Your task to perform on an android device: What's the weather going to be this weekend? Image 0: 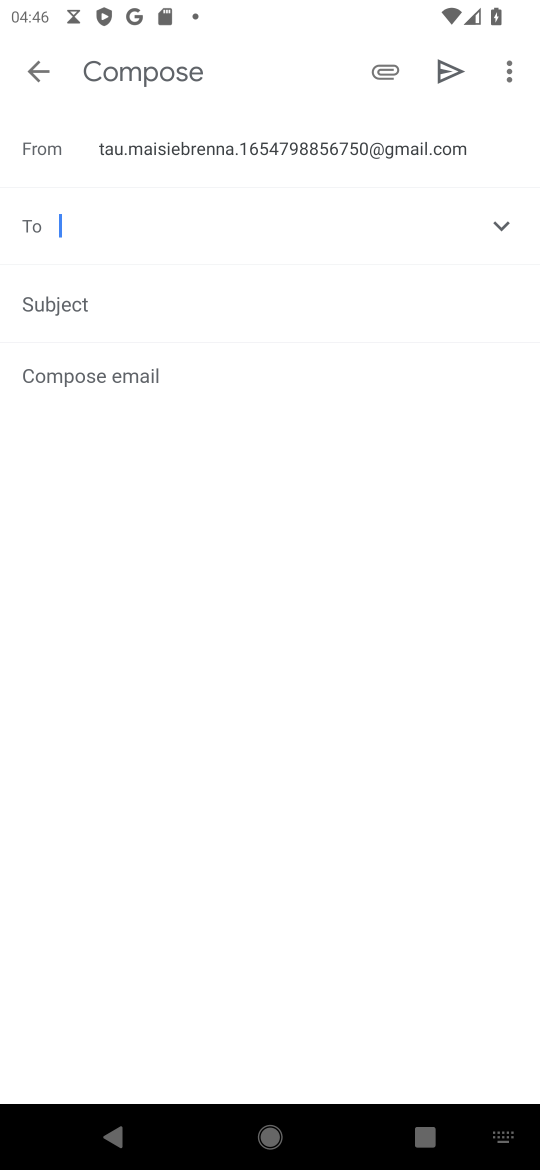
Step 0: press home button
Your task to perform on an android device: What's the weather going to be this weekend? Image 1: 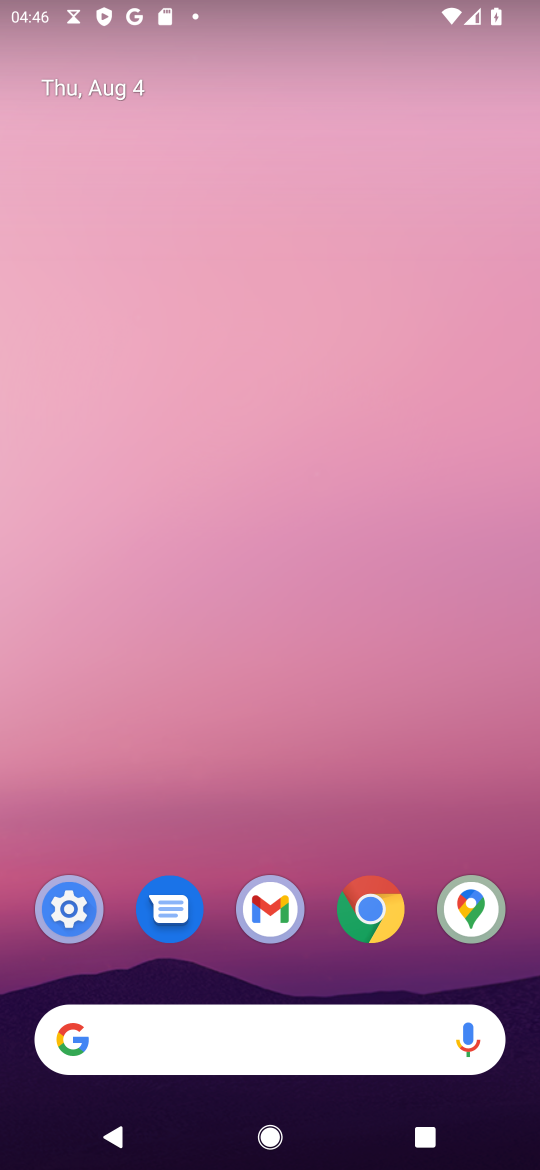
Step 1: click (216, 1041)
Your task to perform on an android device: What's the weather going to be this weekend? Image 2: 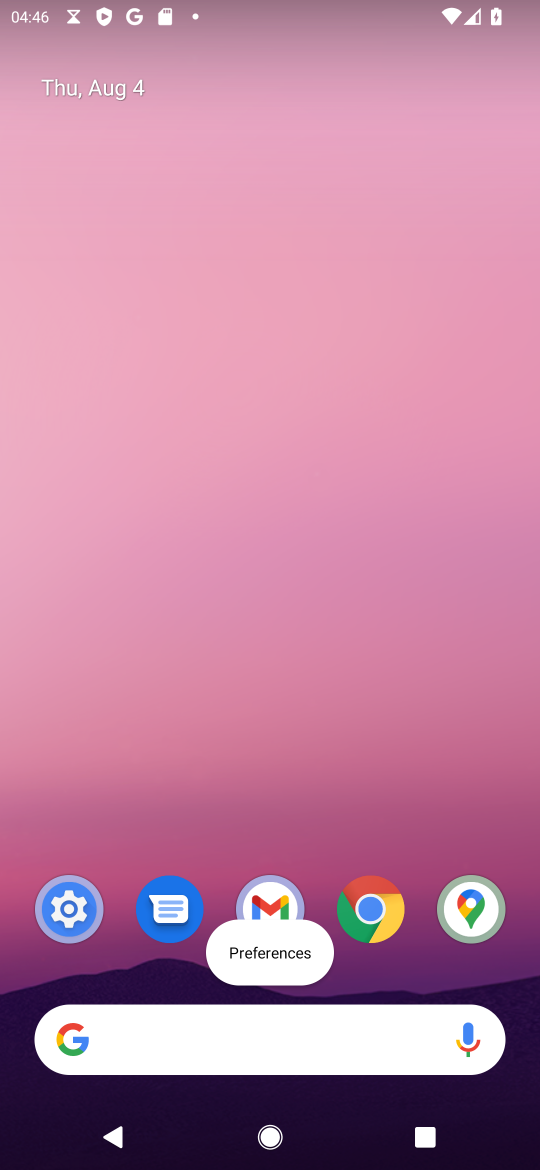
Step 2: click (184, 1034)
Your task to perform on an android device: What's the weather going to be this weekend? Image 3: 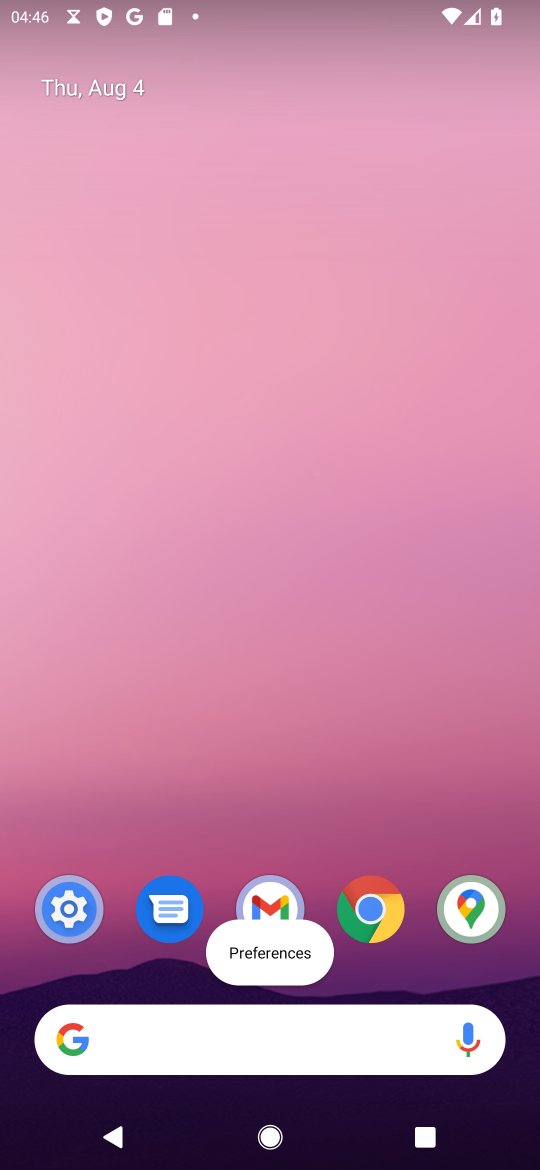
Step 3: click (143, 1041)
Your task to perform on an android device: What's the weather going to be this weekend? Image 4: 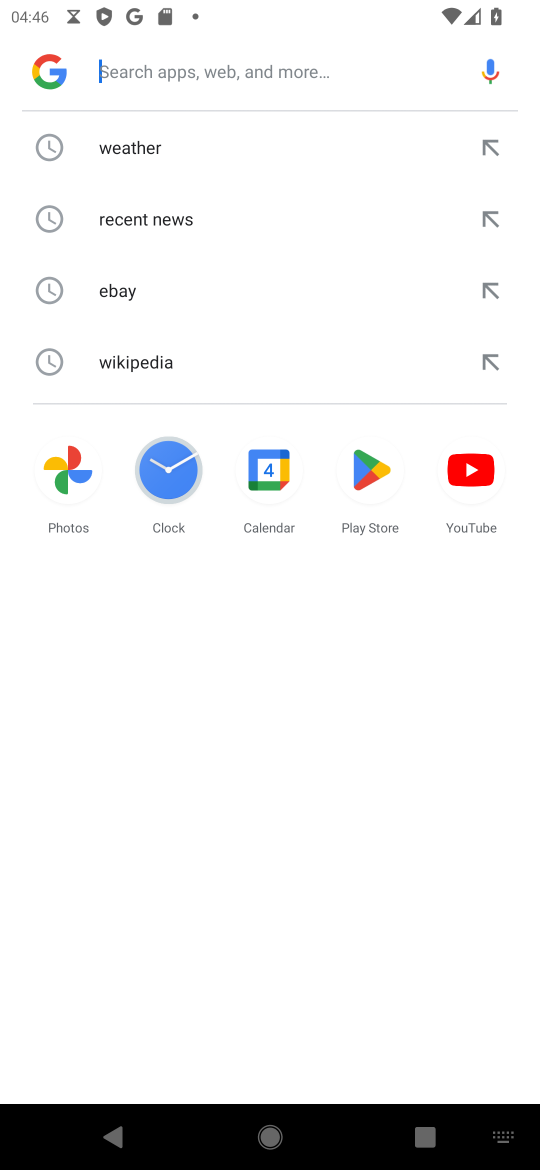
Step 4: click (149, 156)
Your task to perform on an android device: What's the weather going to be this weekend? Image 5: 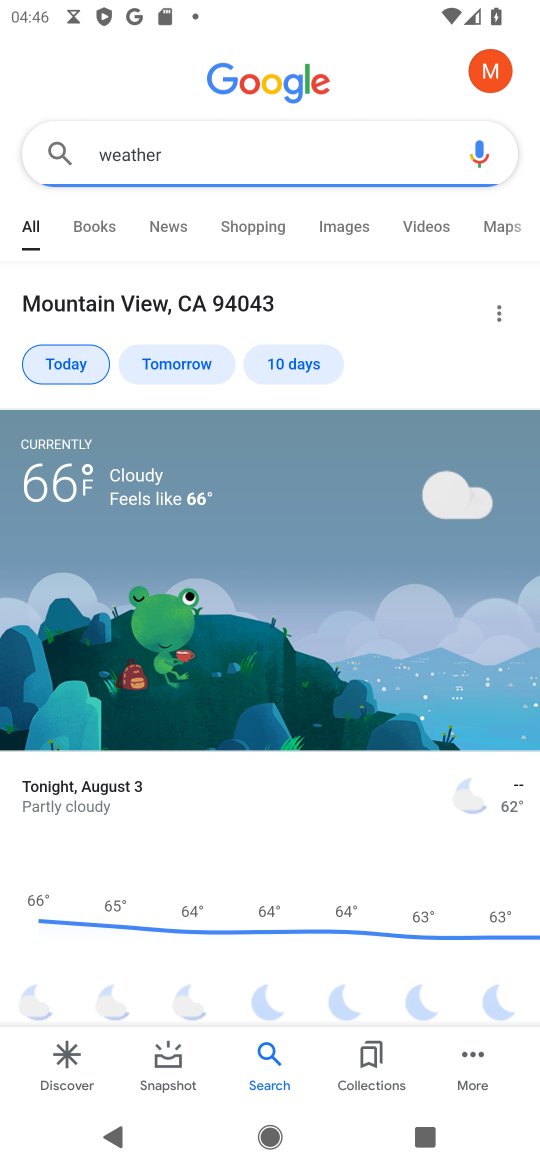
Step 5: click (322, 370)
Your task to perform on an android device: What's the weather going to be this weekend? Image 6: 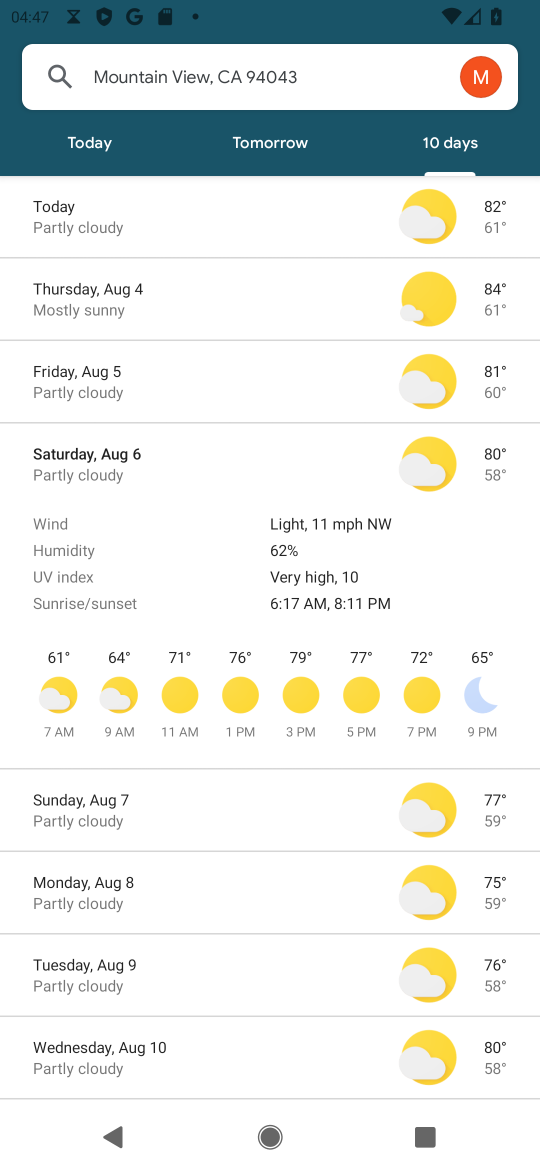
Step 6: task complete